Your task to perform on an android device: Search for hotels in Buenos aires Image 0: 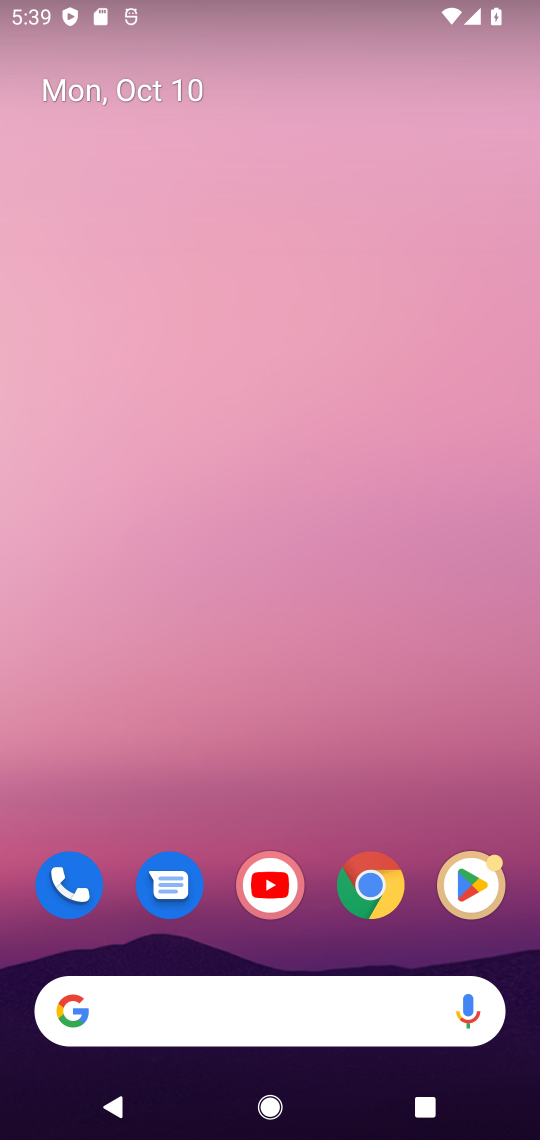
Step 0: click (380, 891)
Your task to perform on an android device: Search for hotels in Buenos aires Image 1: 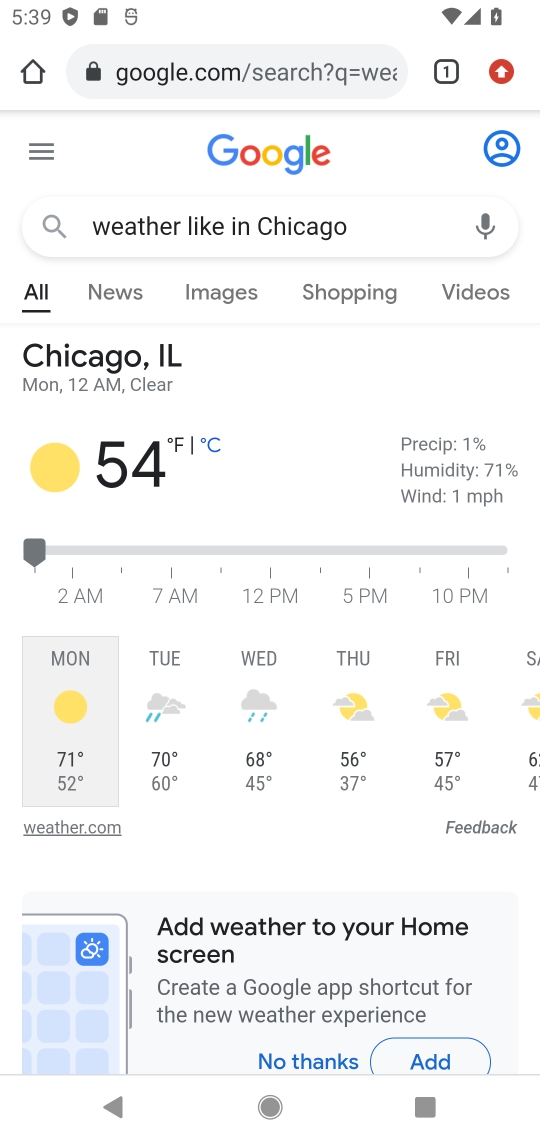
Step 1: click (267, 80)
Your task to perform on an android device: Search for hotels in Buenos aires Image 2: 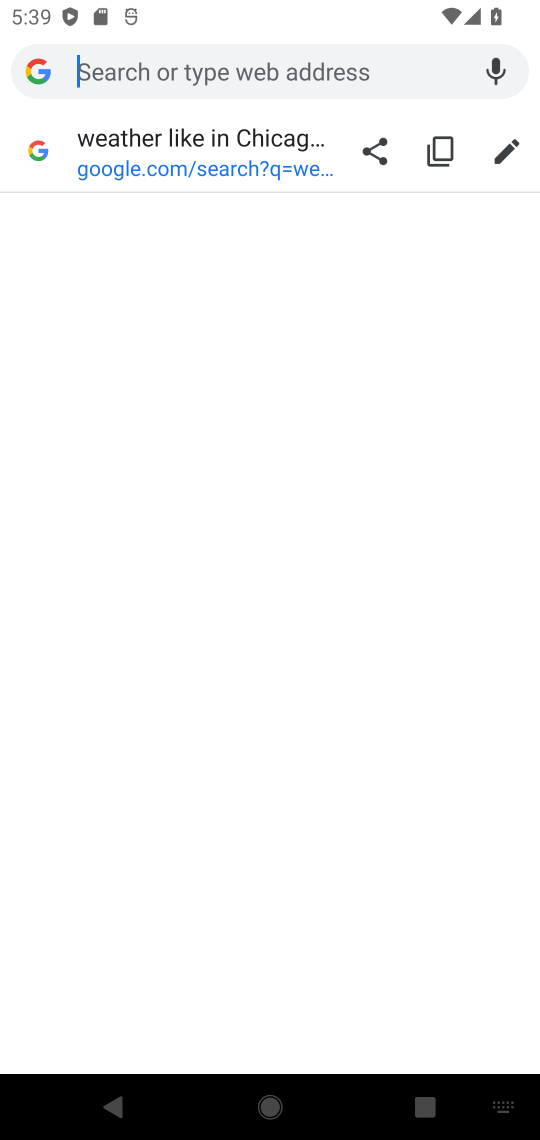
Step 2: type "hotels in Buenos aires"
Your task to perform on an android device: Search for hotels in Buenos aires Image 3: 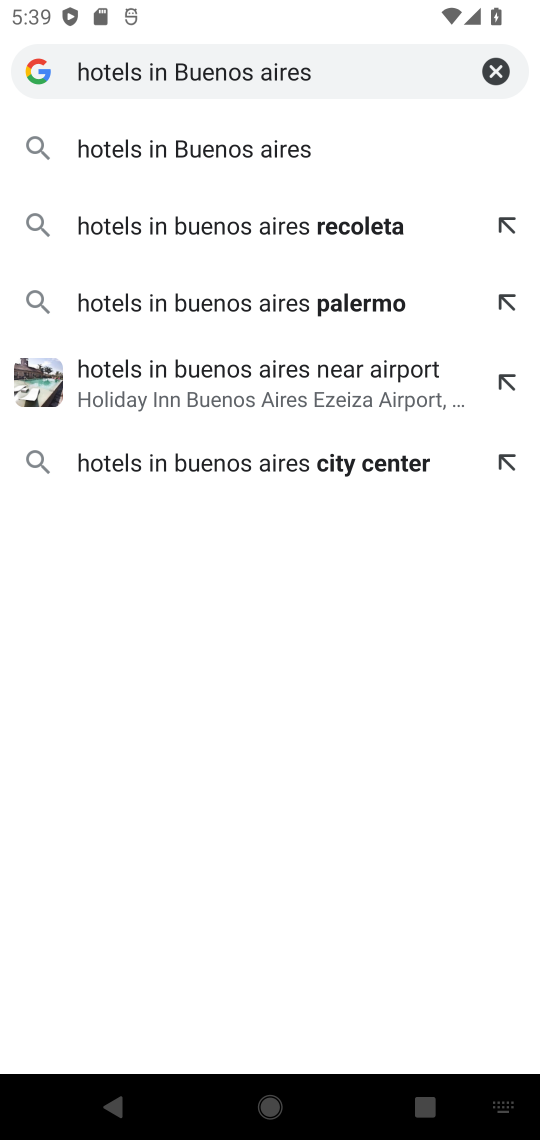
Step 3: click (232, 151)
Your task to perform on an android device: Search for hotels in Buenos aires Image 4: 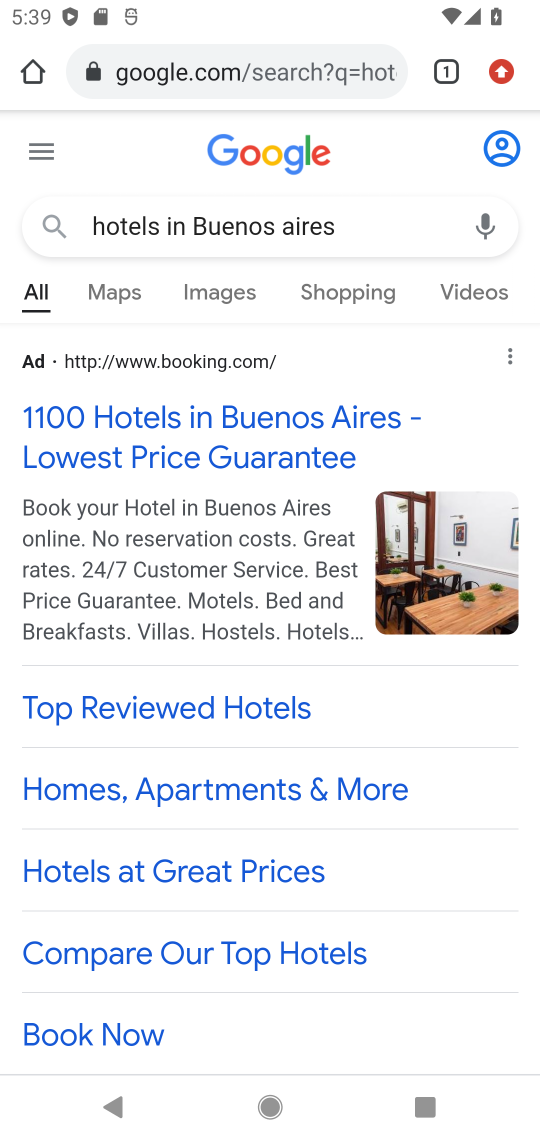
Step 4: drag from (460, 703) to (404, 323)
Your task to perform on an android device: Search for hotels in Buenos aires Image 5: 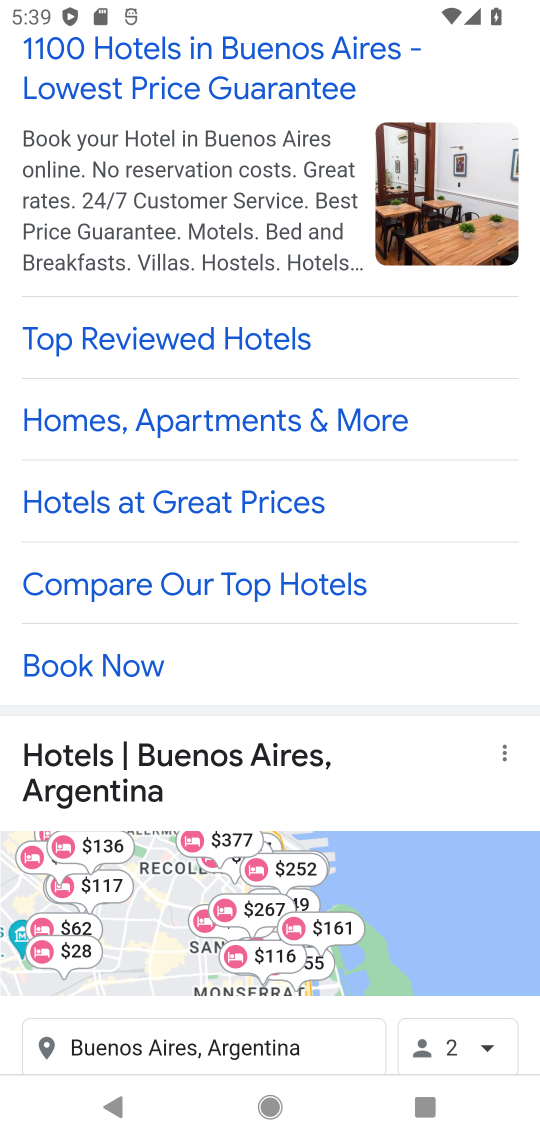
Step 5: drag from (384, 763) to (376, 375)
Your task to perform on an android device: Search for hotels in Buenos aires Image 6: 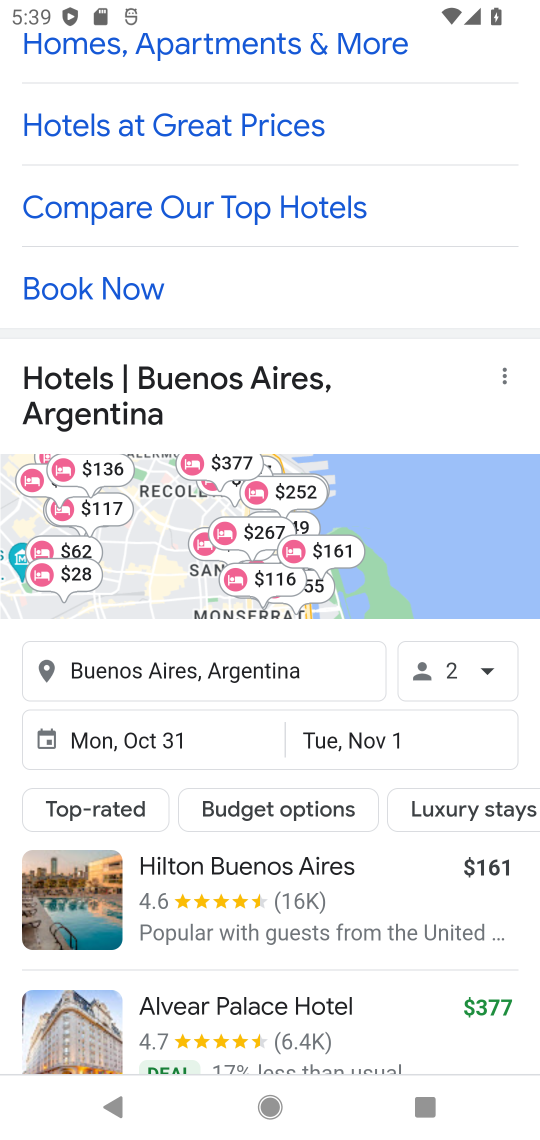
Step 6: drag from (362, 961) to (327, 374)
Your task to perform on an android device: Search for hotels in Buenos aires Image 7: 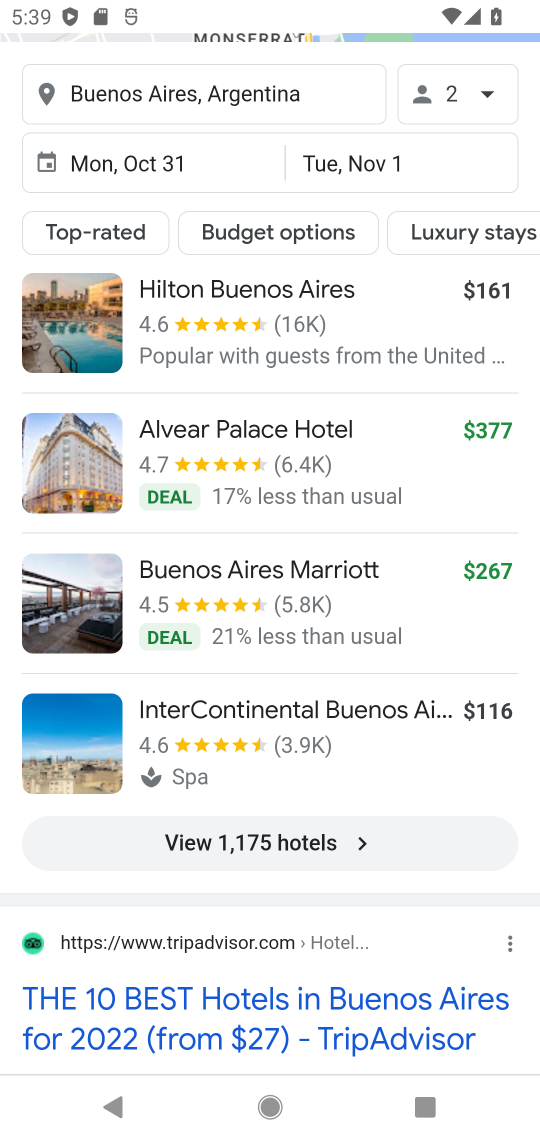
Step 7: click (301, 851)
Your task to perform on an android device: Search for hotels in Buenos aires Image 8: 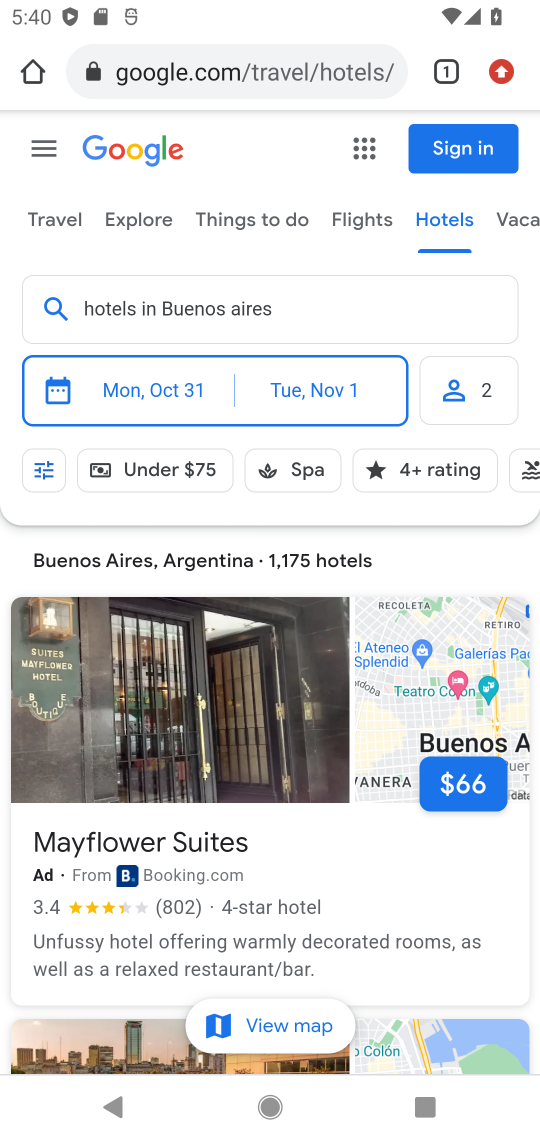
Step 8: task complete